Your task to perform on an android device: Go to notification settings Image 0: 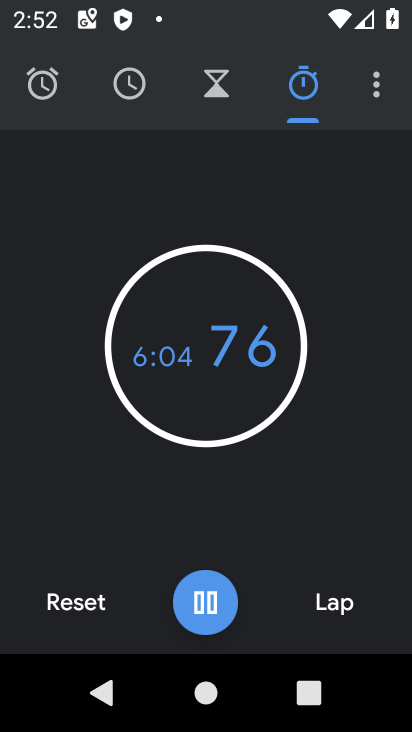
Step 0: drag from (183, 564) to (272, 1)
Your task to perform on an android device: Go to notification settings Image 1: 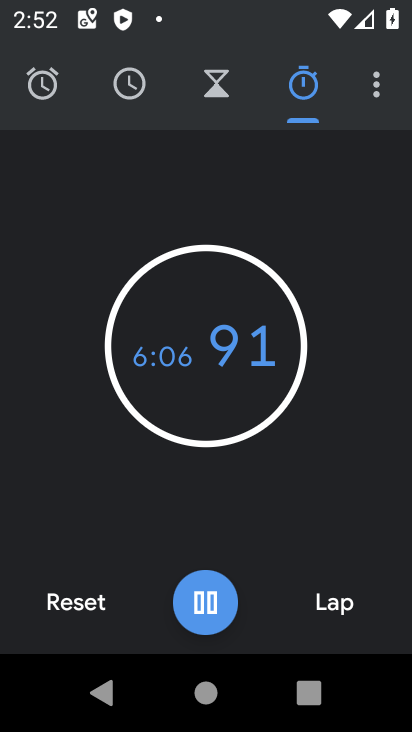
Step 1: press home button
Your task to perform on an android device: Go to notification settings Image 2: 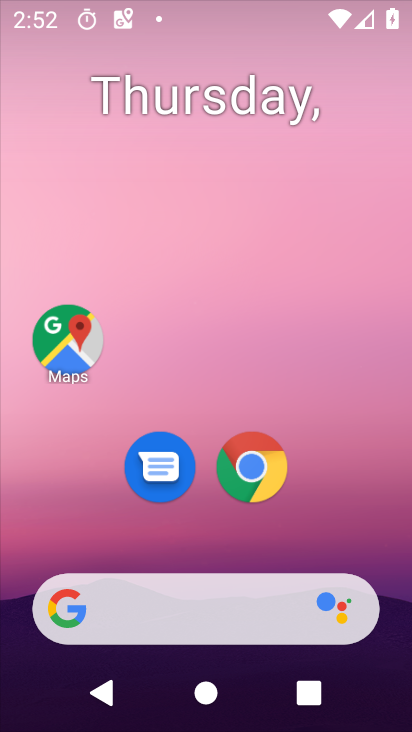
Step 2: drag from (194, 534) to (219, 182)
Your task to perform on an android device: Go to notification settings Image 3: 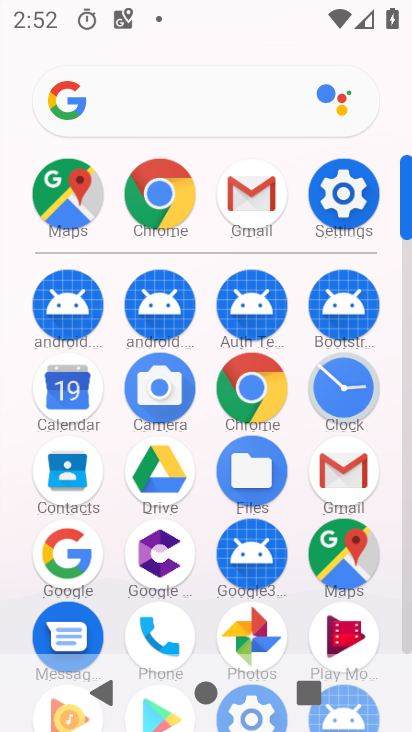
Step 3: click (326, 206)
Your task to perform on an android device: Go to notification settings Image 4: 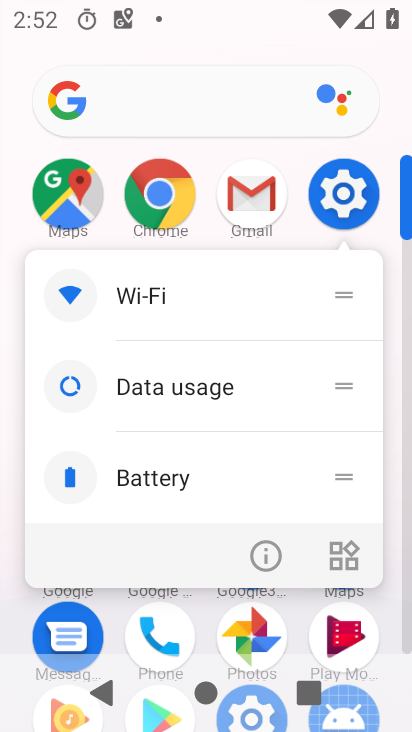
Step 4: click (269, 550)
Your task to perform on an android device: Go to notification settings Image 5: 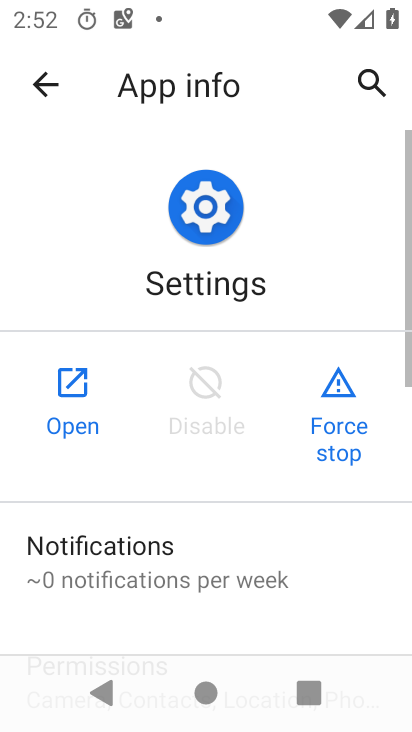
Step 5: click (79, 370)
Your task to perform on an android device: Go to notification settings Image 6: 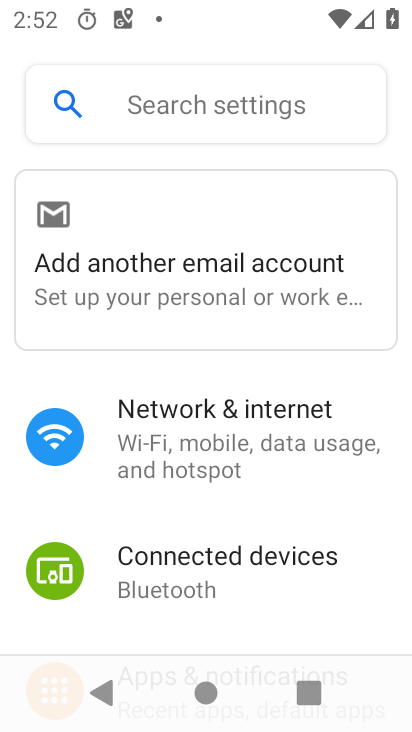
Step 6: drag from (243, 542) to (251, 250)
Your task to perform on an android device: Go to notification settings Image 7: 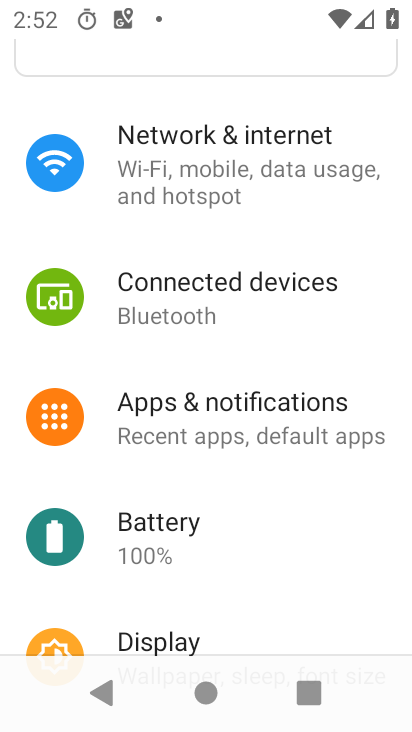
Step 7: click (207, 430)
Your task to perform on an android device: Go to notification settings Image 8: 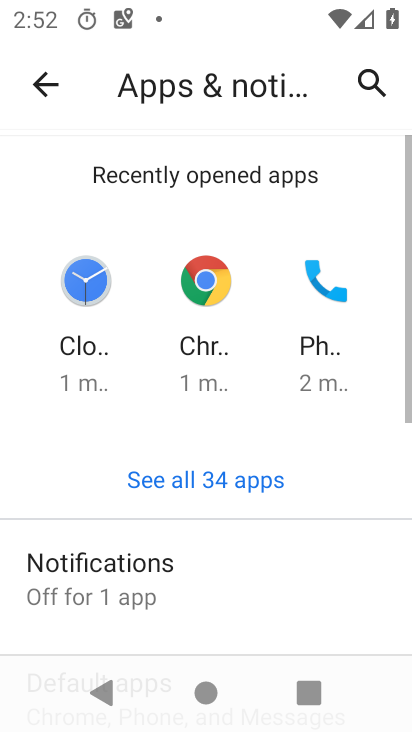
Step 8: drag from (217, 618) to (228, 254)
Your task to perform on an android device: Go to notification settings Image 9: 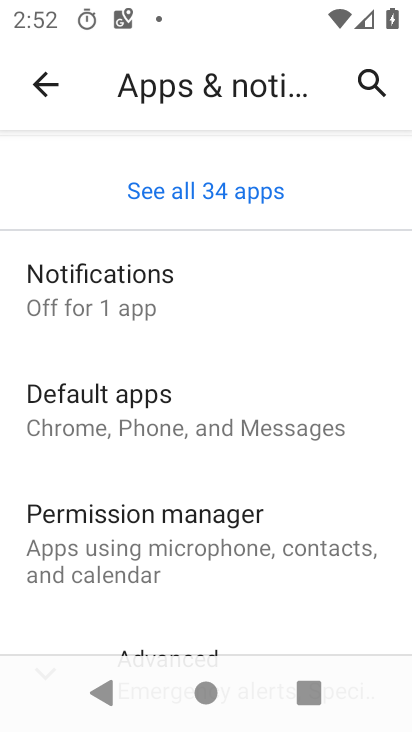
Step 9: click (173, 309)
Your task to perform on an android device: Go to notification settings Image 10: 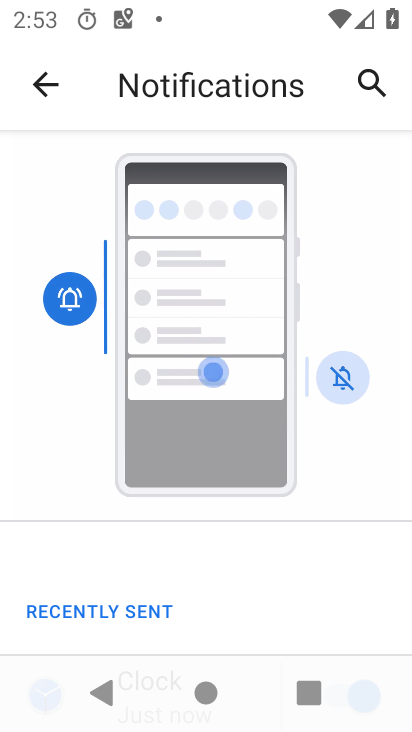
Step 10: drag from (261, 582) to (246, 86)
Your task to perform on an android device: Go to notification settings Image 11: 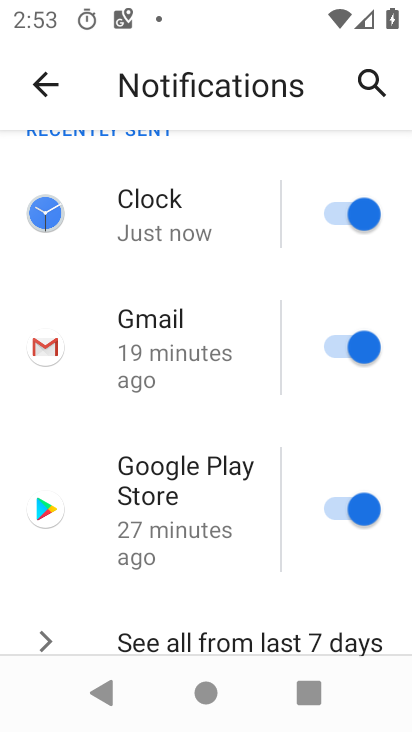
Step 11: drag from (244, 553) to (265, 110)
Your task to perform on an android device: Go to notification settings Image 12: 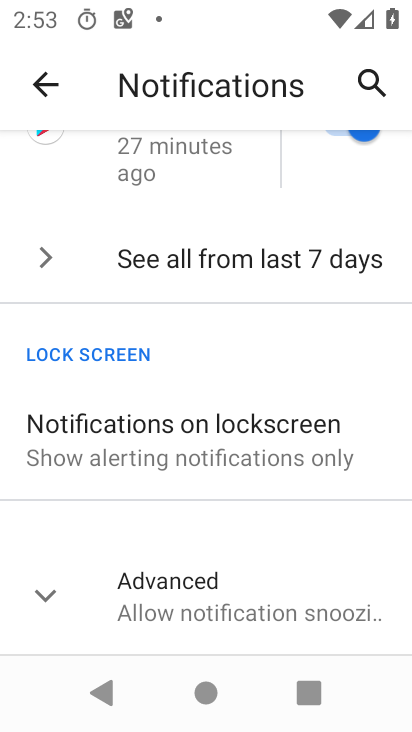
Step 12: drag from (213, 579) to (243, 120)
Your task to perform on an android device: Go to notification settings Image 13: 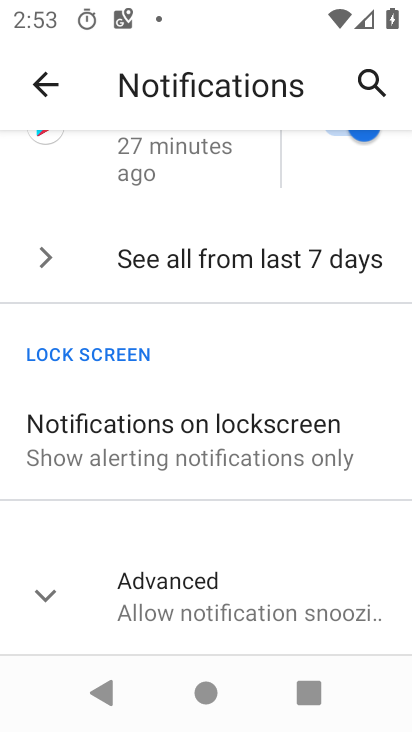
Step 13: click (160, 590)
Your task to perform on an android device: Go to notification settings Image 14: 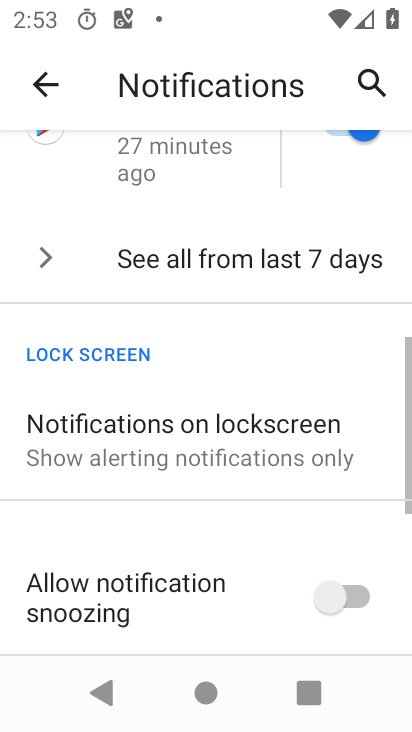
Step 14: task complete